Your task to perform on an android device: open device folders in google photos Image 0: 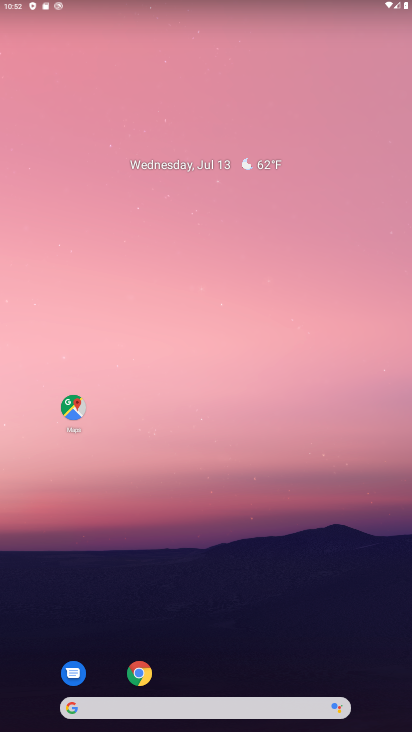
Step 0: drag from (216, 575) to (211, 127)
Your task to perform on an android device: open device folders in google photos Image 1: 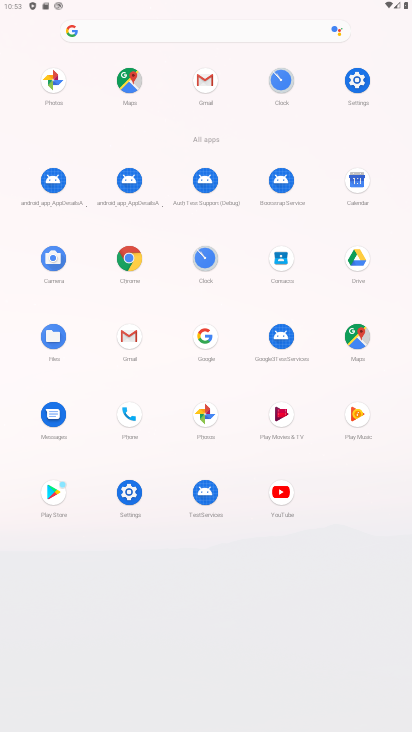
Step 1: click (207, 412)
Your task to perform on an android device: open device folders in google photos Image 2: 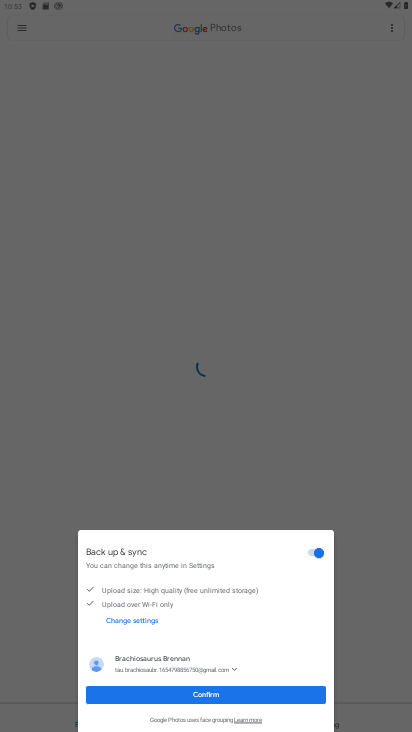
Step 2: click (191, 693)
Your task to perform on an android device: open device folders in google photos Image 3: 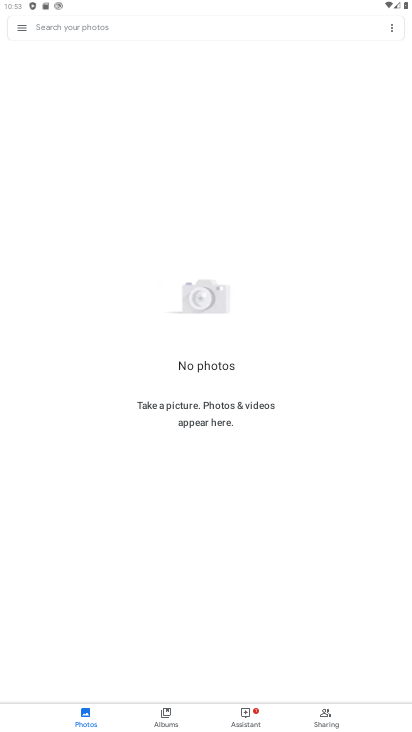
Step 3: click (22, 26)
Your task to perform on an android device: open device folders in google photos Image 4: 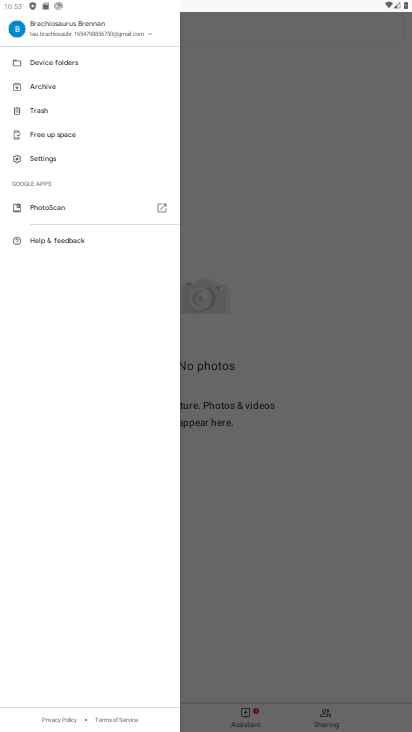
Step 4: click (66, 64)
Your task to perform on an android device: open device folders in google photos Image 5: 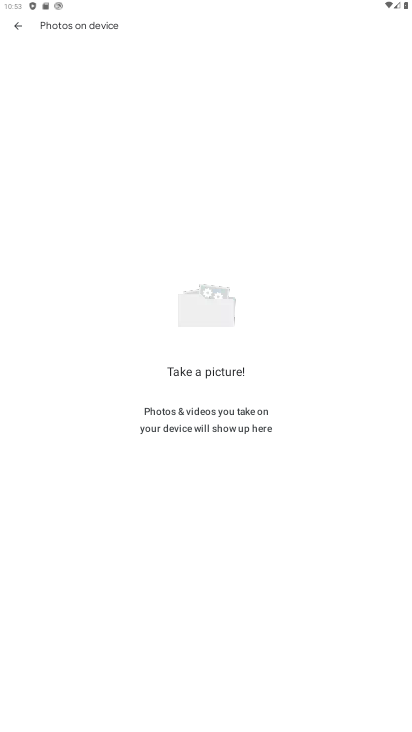
Step 5: task complete